Your task to perform on an android device: Search for vegetarian restaurants on Maps Image 0: 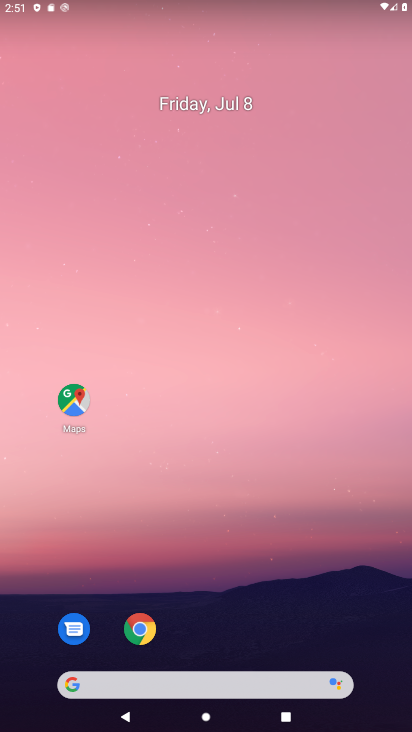
Step 0: click (64, 406)
Your task to perform on an android device: Search for vegetarian restaurants on Maps Image 1: 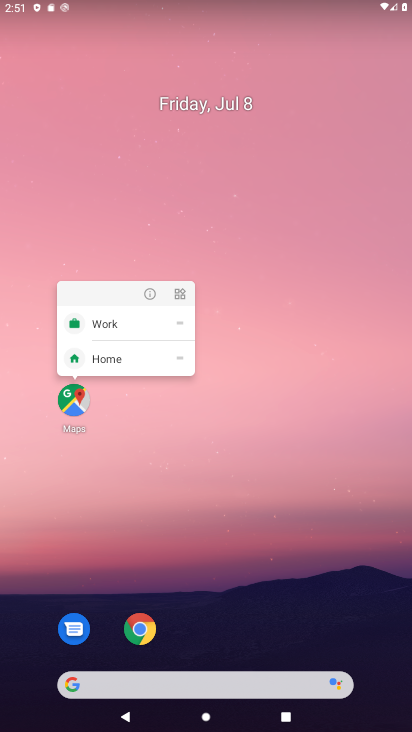
Step 1: click (91, 424)
Your task to perform on an android device: Search for vegetarian restaurants on Maps Image 2: 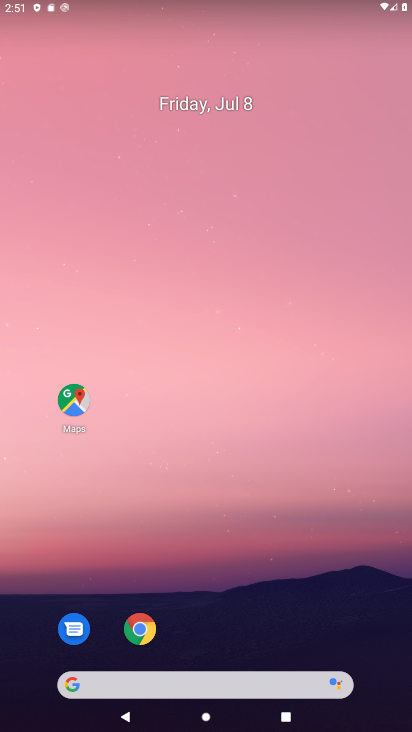
Step 2: click (63, 398)
Your task to perform on an android device: Search for vegetarian restaurants on Maps Image 3: 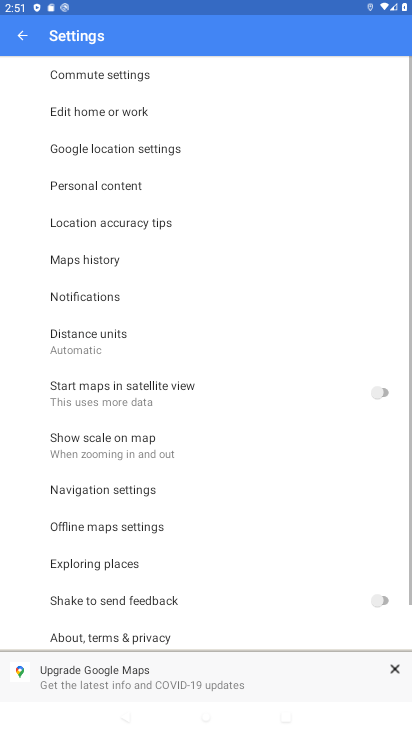
Step 3: click (20, 29)
Your task to perform on an android device: Search for vegetarian restaurants on Maps Image 4: 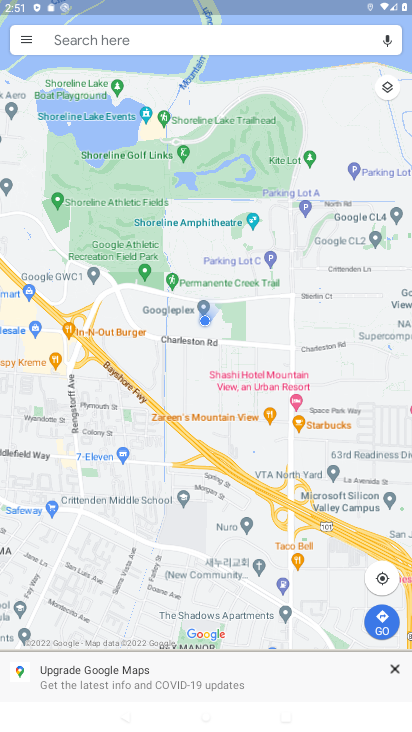
Step 4: click (64, 39)
Your task to perform on an android device: Search for vegetarian restaurants on Maps Image 5: 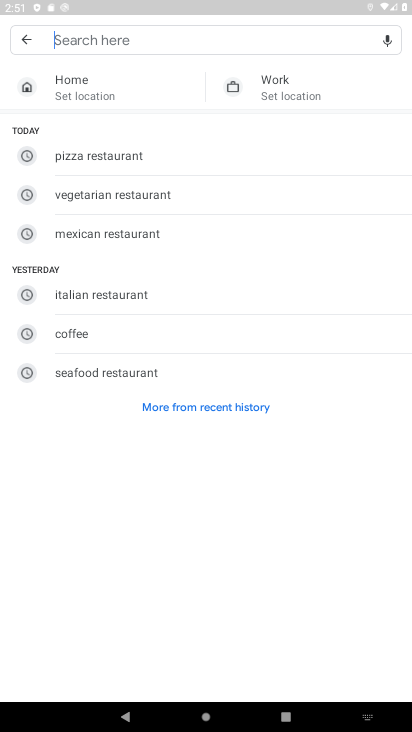
Step 5: type "vegetarian restaurants"
Your task to perform on an android device: Search for vegetarian restaurants on Maps Image 6: 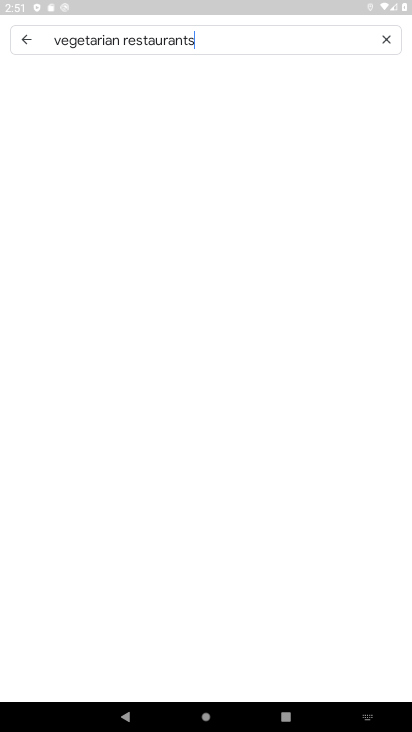
Step 6: type ""
Your task to perform on an android device: Search for vegetarian restaurants on Maps Image 7: 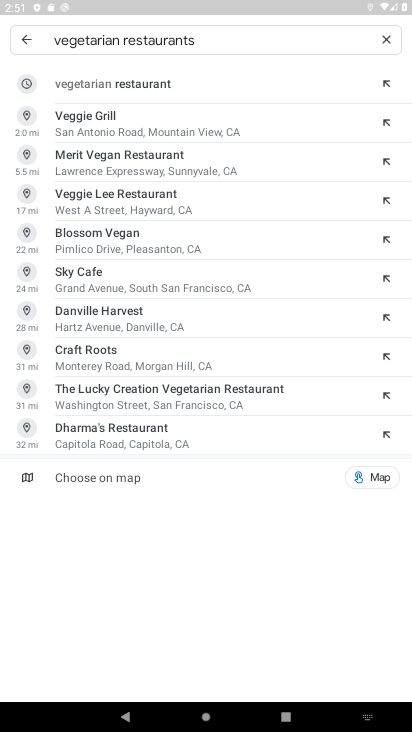
Step 7: click (141, 80)
Your task to perform on an android device: Search for vegetarian restaurants on Maps Image 8: 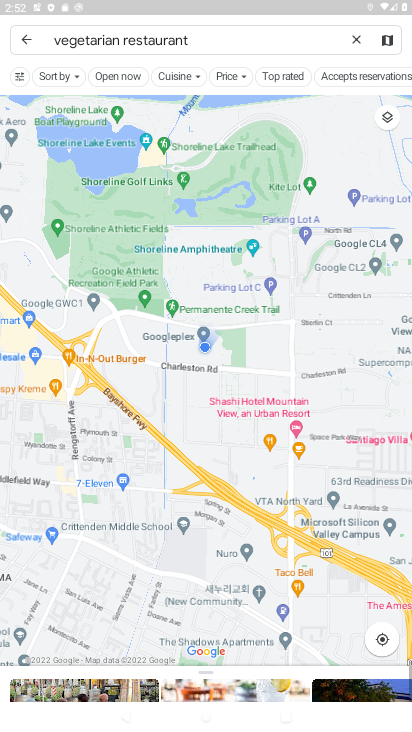
Step 8: task complete